Your task to perform on an android device: turn on the 24-hour format for clock Image 0: 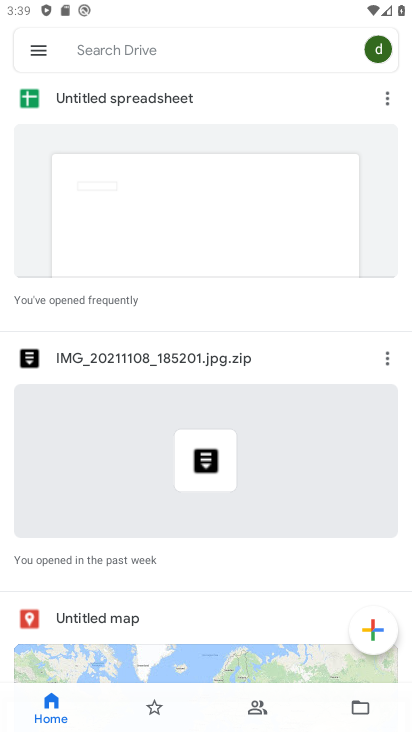
Step 0: press home button
Your task to perform on an android device: turn on the 24-hour format for clock Image 1: 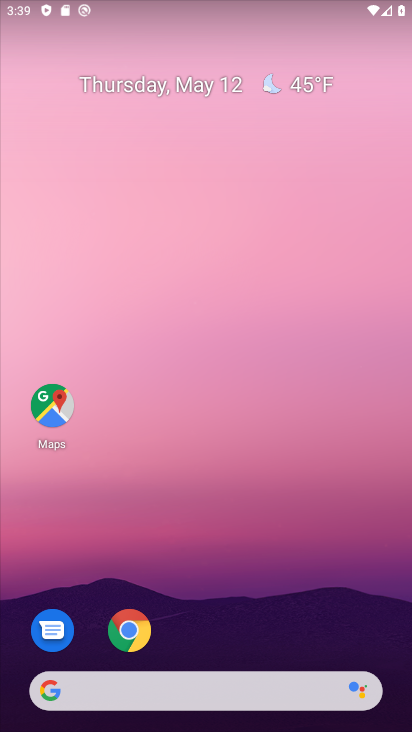
Step 1: drag from (231, 638) to (232, 217)
Your task to perform on an android device: turn on the 24-hour format for clock Image 2: 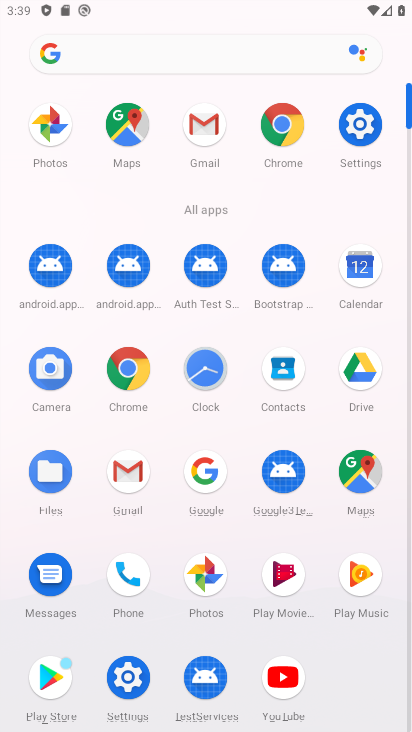
Step 2: click (367, 139)
Your task to perform on an android device: turn on the 24-hour format for clock Image 3: 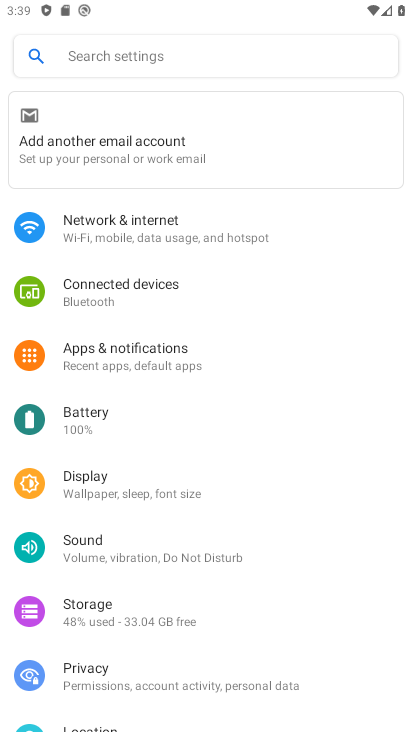
Step 3: drag from (185, 619) to (235, 235)
Your task to perform on an android device: turn on the 24-hour format for clock Image 4: 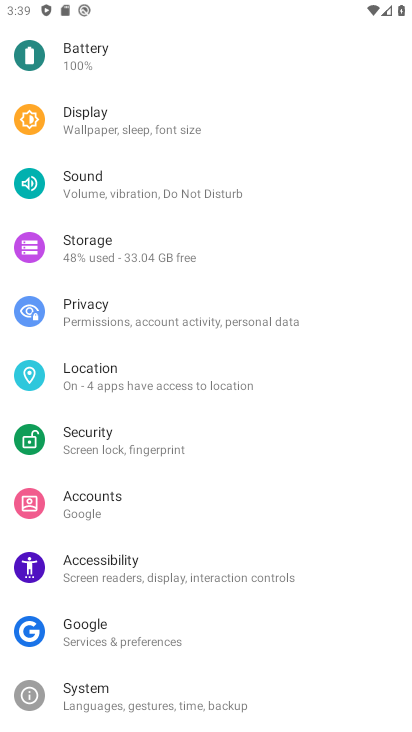
Step 4: drag from (166, 639) to (202, 379)
Your task to perform on an android device: turn on the 24-hour format for clock Image 5: 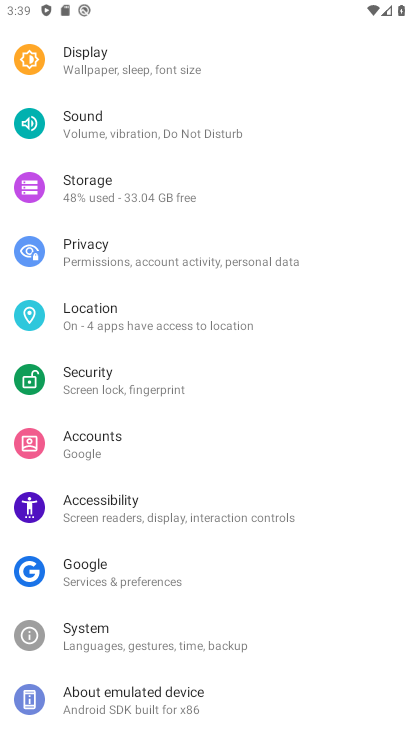
Step 5: click (134, 629)
Your task to perform on an android device: turn on the 24-hour format for clock Image 6: 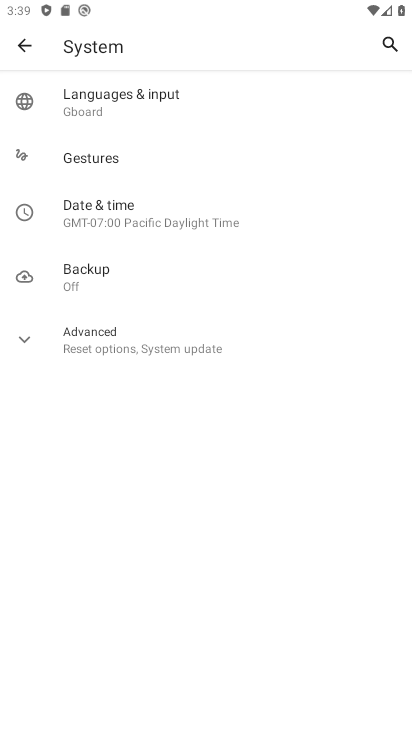
Step 6: click (173, 218)
Your task to perform on an android device: turn on the 24-hour format for clock Image 7: 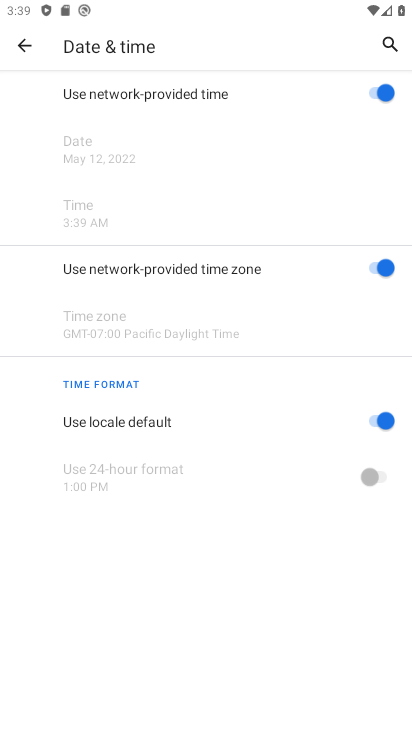
Step 7: click (370, 410)
Your task to perform on an android device: turn on the 24-hour format for clock Image 8: 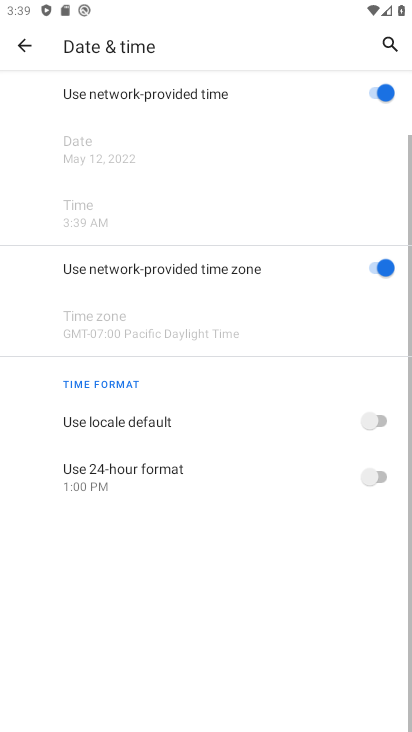
Step 8: click (393, 471)
Your task to perform on an android device: turn on the 24-hour format for clock Image 9: 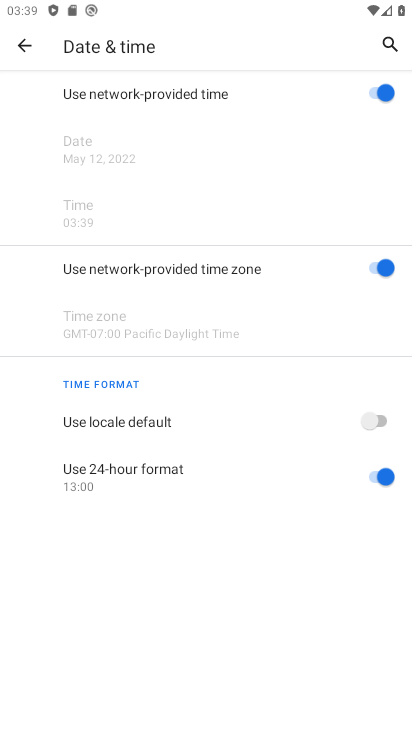
Step 9: task complete